Your task to perform on an android device: open sync settings in chrome Image 0: 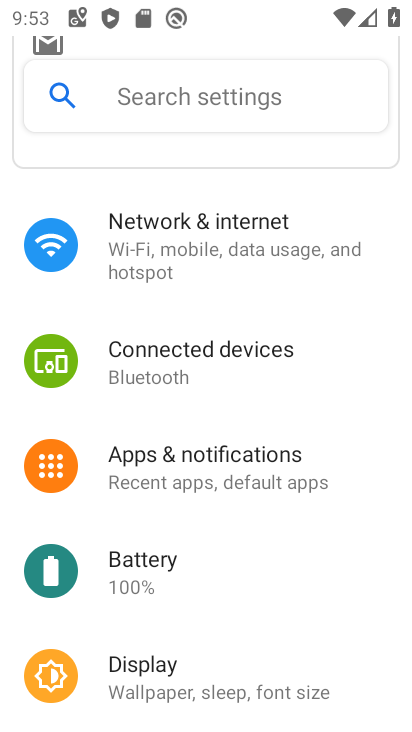
Step 0: press home button
Your task to perform on an android device: open sync settings in chrome Image 1: 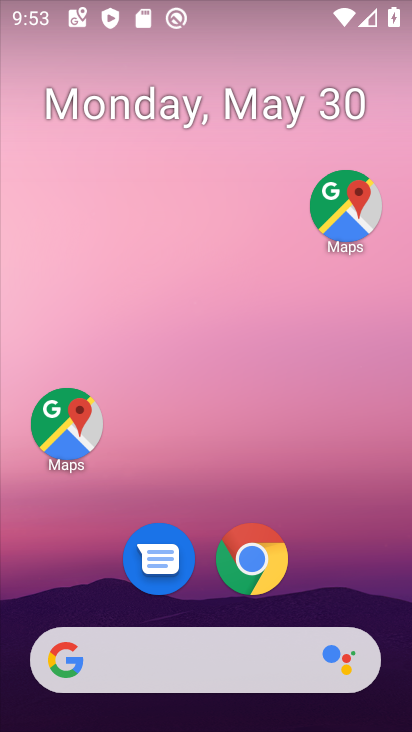
Step 1: click (257, 561)
Your task to perform on an android device: open sync settings in chrome Image 2: 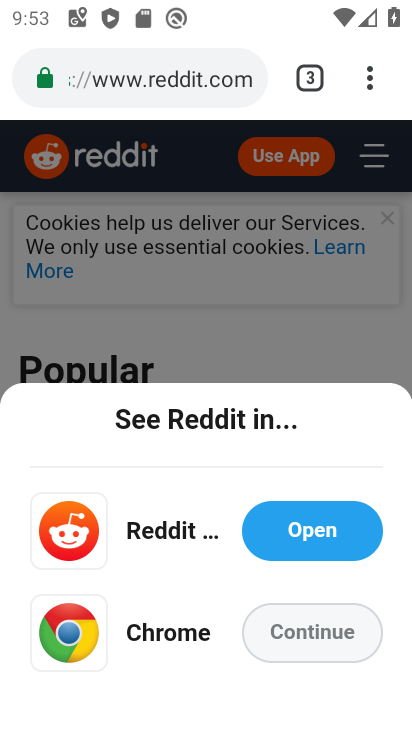
Step 2: click (369, 76)
Your task to perform on an android device: open sync settings in chrome Image 3: 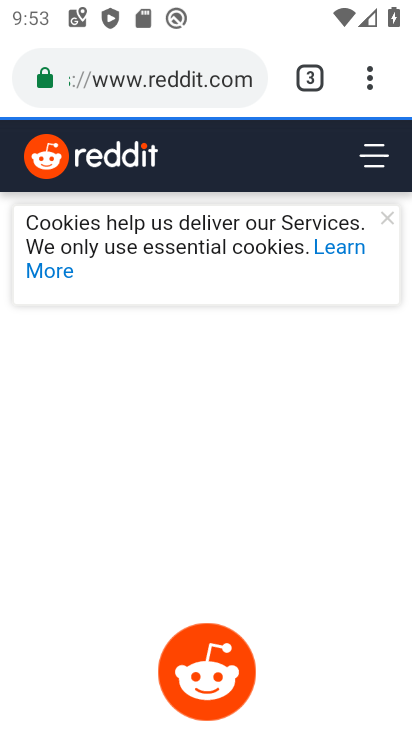
Step 3: drag from (368, 67) to (162, 606)
Your task to perform on an android device: open sync settings in chrome Image 4: 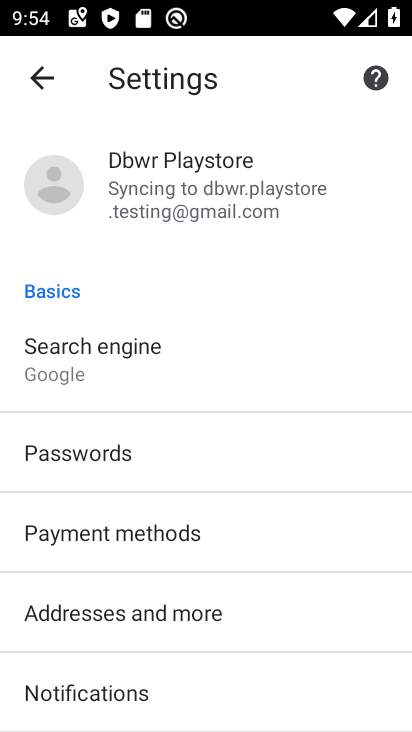
Step 4: click (156, 152)
Your task to perform on an android device: open sync settings in chrome Image 5: 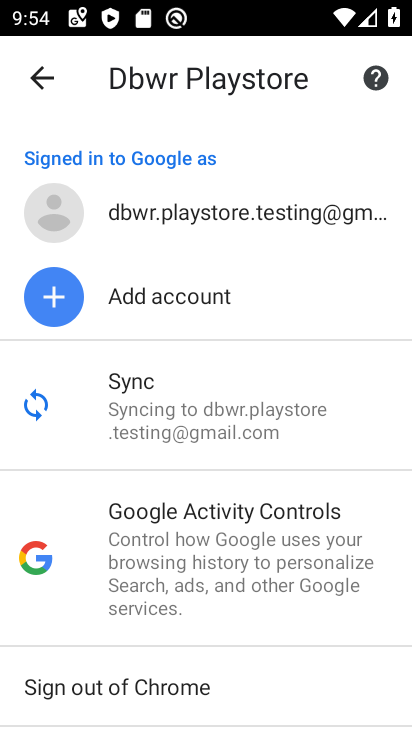
Step 5: click (139, 388)
Your task to perform on an android device: open sync settings in chrome Image 6: 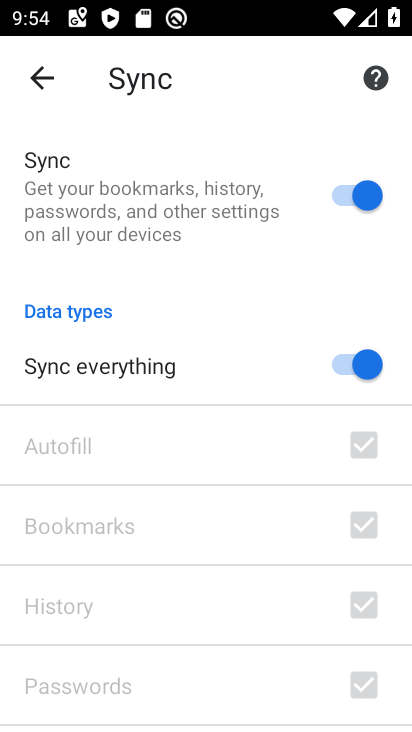
Step 6: task complete